Your task to perform on an android device: Open eBay Image 0: 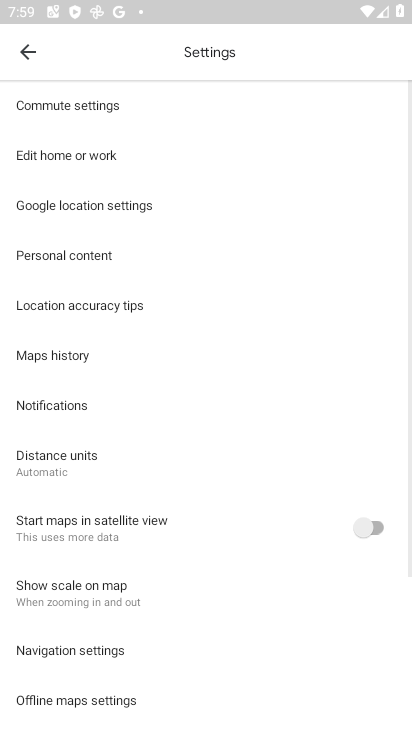
Step 0: press home button
Your task to perform on an android device: Open eBay Image 1: 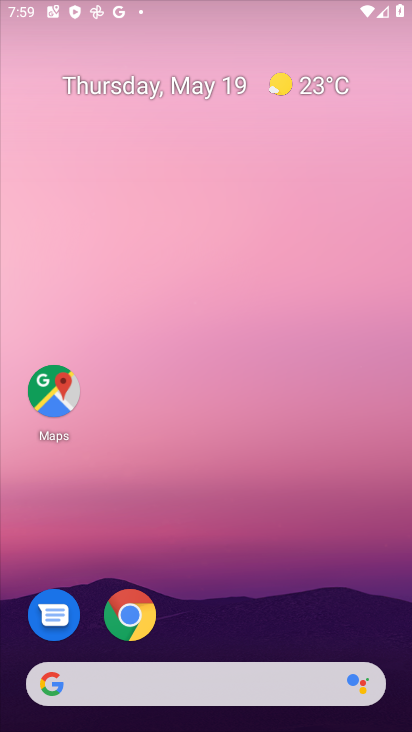
Step 1: drag from (331, 590) to (252, 42)
Your task to perform on an android device: Open eBay Image 2: 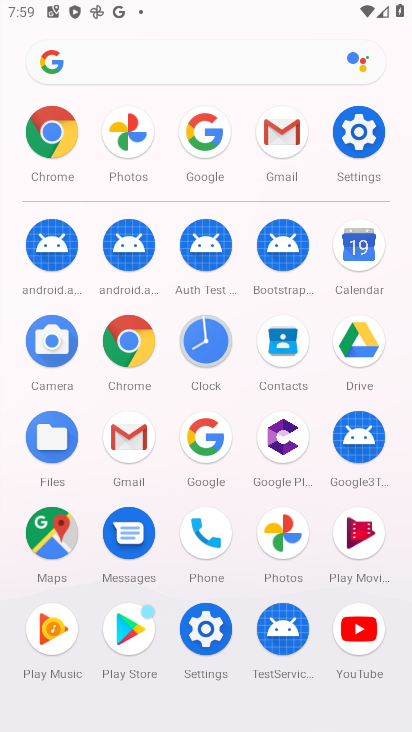
Step 2: click (211, 134)
Your task to perform on an android device: Open eBay Image 3: 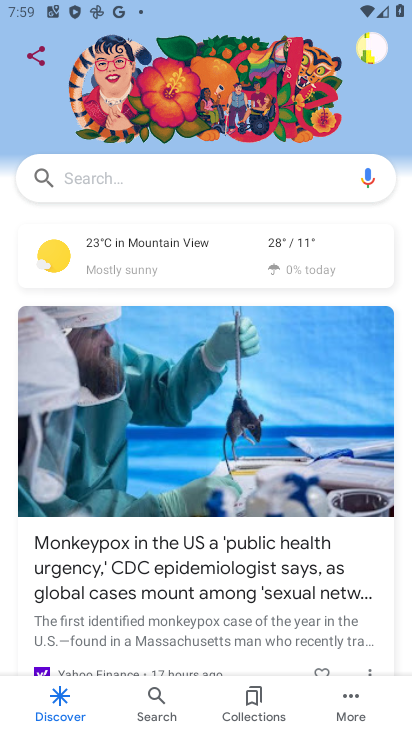
Step 3: click (149, 191)
Your task to perform on an android device: Open eBay Image 4: 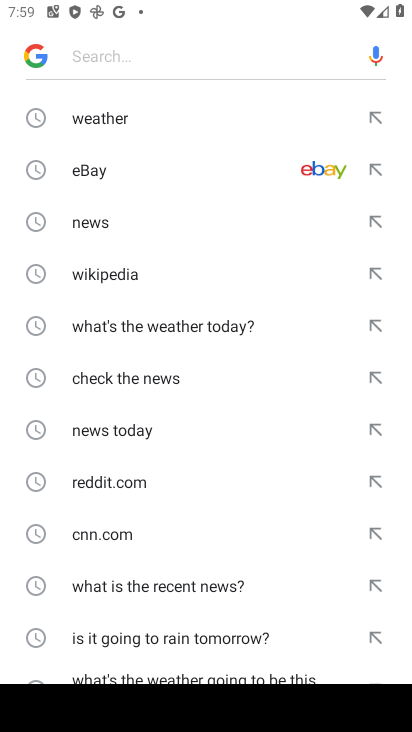
Step 4: click (112, 180)
Your task to perform on an android device: Open eBay Image 5: 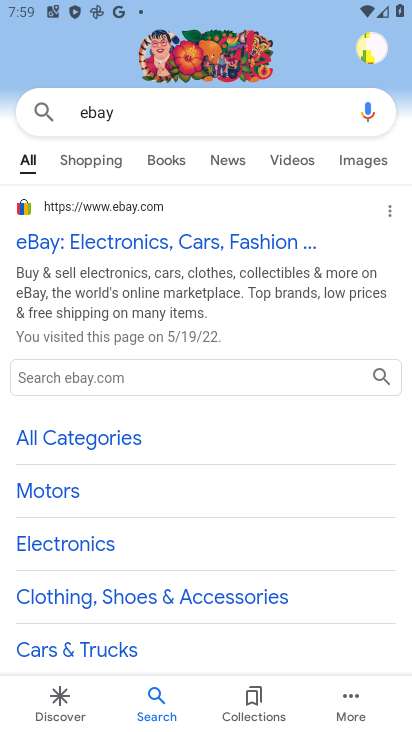
Step 5: click (221, 218)
Your task to perform on an android device: Open eBay Image 6: 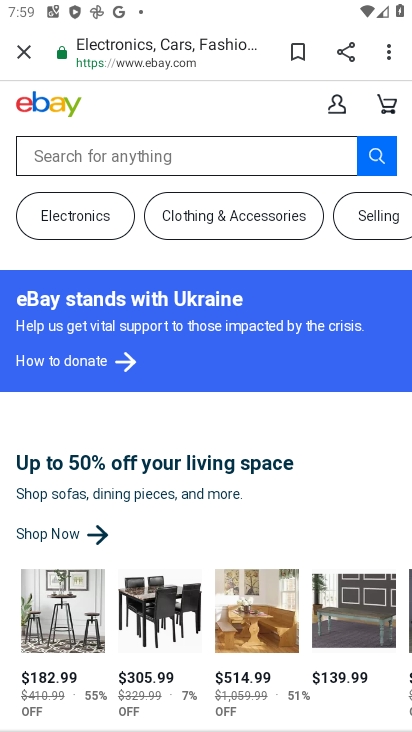
Step 6: task complete